Your task to perform on an android device: find snoozed emails in the gmail app Image 0: 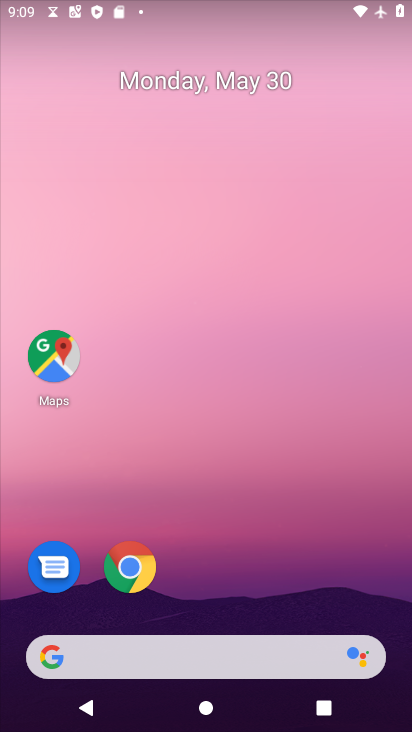
Step 0: drag from (245, 603) to (270, 16)
Your task to perform on an android device: find snoozed emails in the gmail app Image 1: 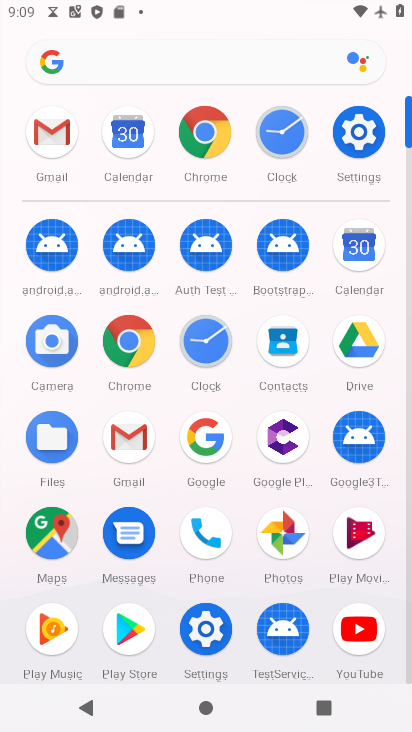
Step 1: click (45, 132)
Your task to perform on an android device: find snoozed emails in the gmail app Image 2: 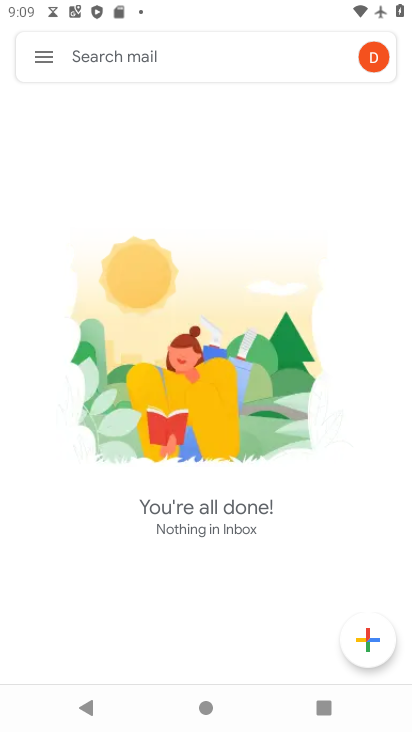
Step 2: click (41, 64)
Your task to perform on an android device: find snoozed emails in the gmail app Image 3: 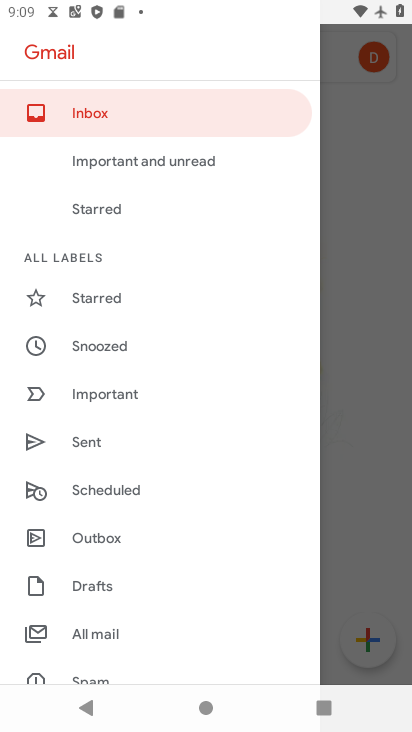
Step 3: click (96, 350)
Your task to perform on an android device: find snoozed emails in the gmail app Image 4: 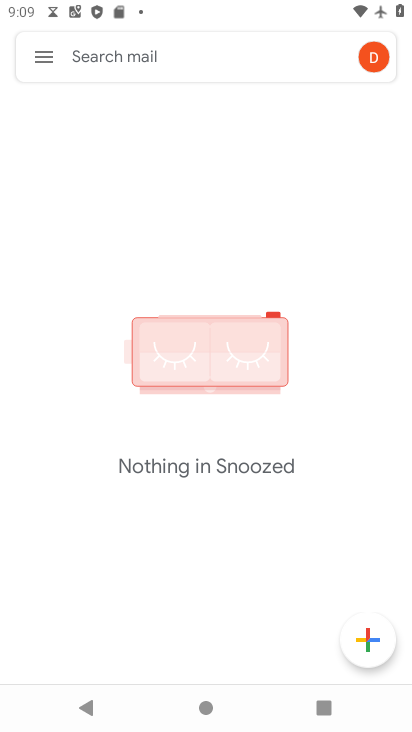
Step 4: task complete